Your task to perform on an android device: add a contact in the contacts app Image 0: 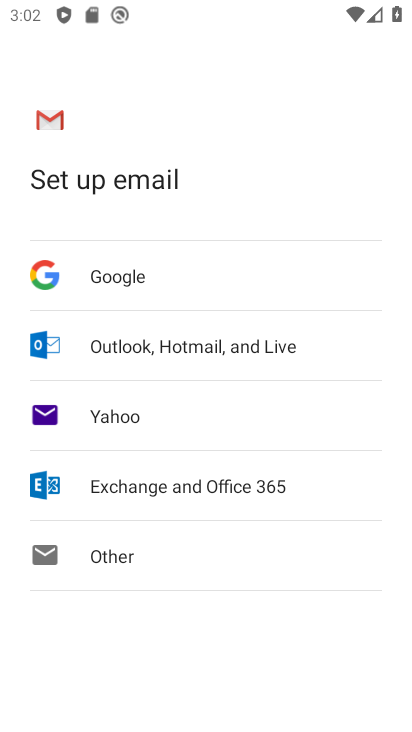
Step 0: press home button
Your task to perform on an android device: add a contact in the contacts app Image 1: 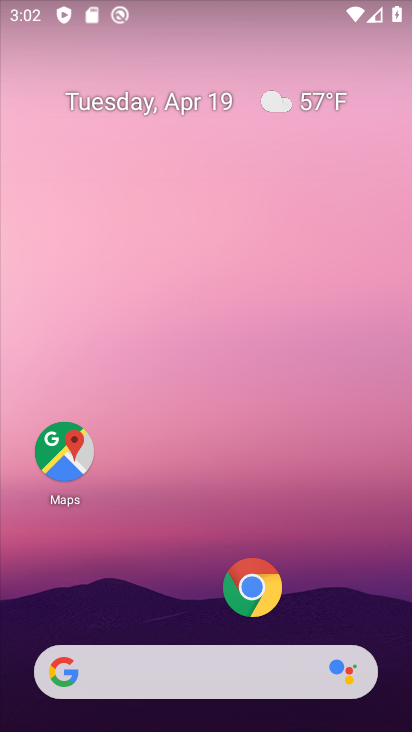
Step 1: drag from (192, 594) to (286, 30)
Your task to perform on an android device: add a contact in the contacts app Image 2: 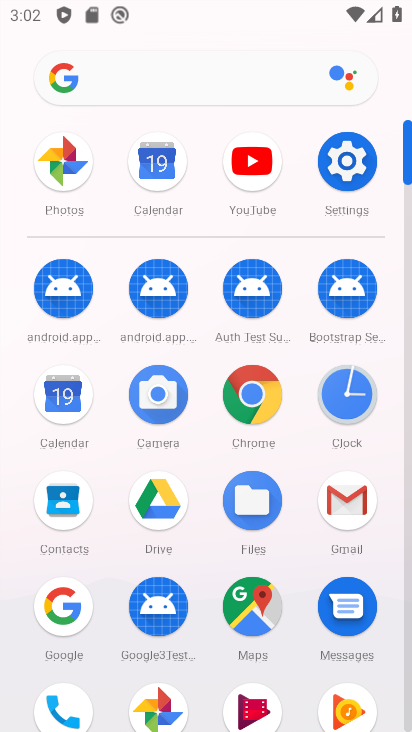
Step 2: click (54, 511)
Your task to perform on an android device: add a contact in the contacts app Image 3: 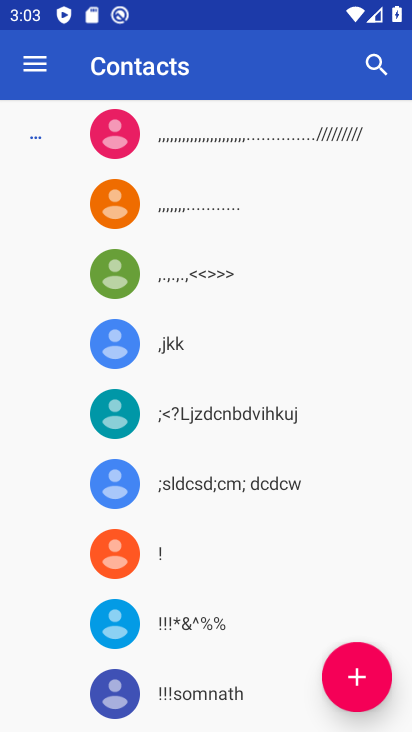
Step 3: click (353, 675)
Your task to perform on an android device: add a contact in the contacts app Image 4: 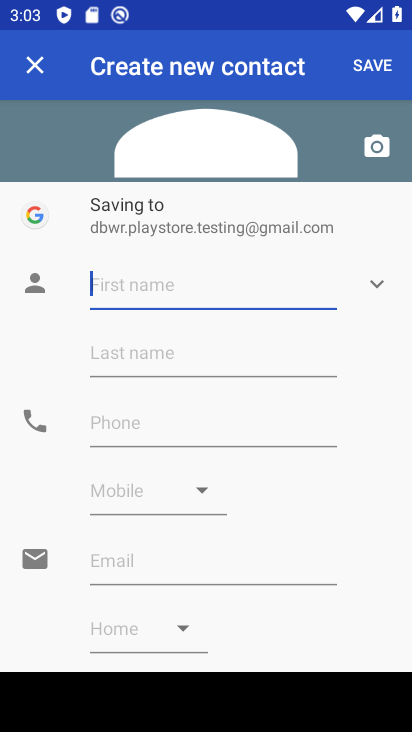
Step 4: type "..........,,,,,,,,,......,,,,,,,.......,a"
Your task to perform on an android device: add a contact in the contacts app Image 5: 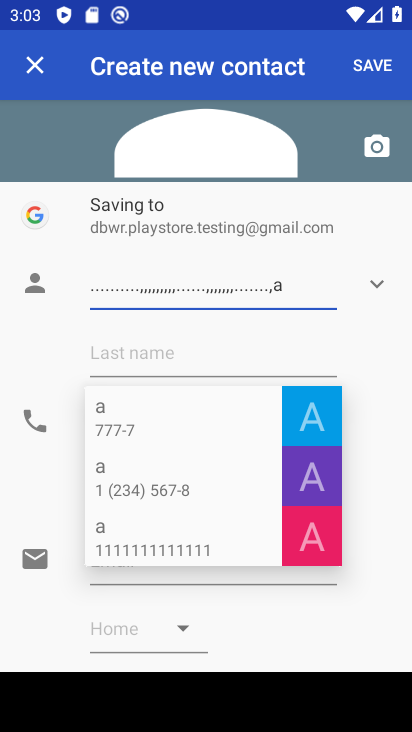
Step 5: click (377, 65)
Your task to perform on an android device: add a contact in the contacts app Image 6: 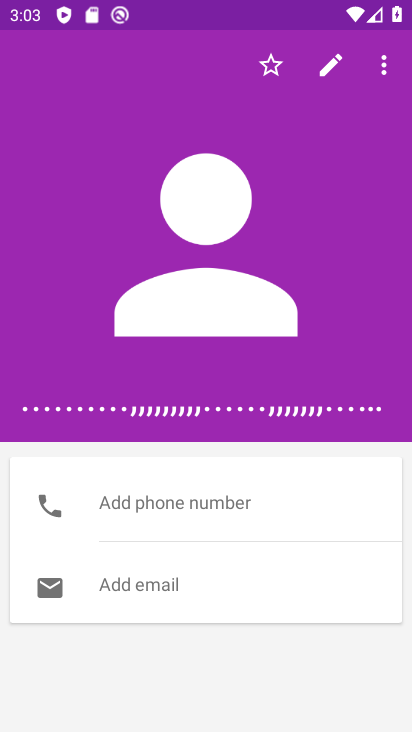
Step 6: task complete